Your task to perform on an android device: open the mobile data screen to see how much data has been used Image 0: 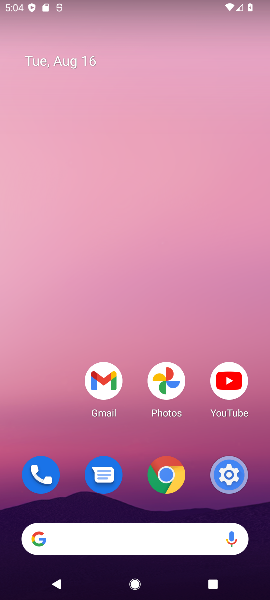
Step 0: drag from (250, 497) to (150, 20)
Your task to perform on an android device: open the mobile data screen to see how much data has been used Image 1: 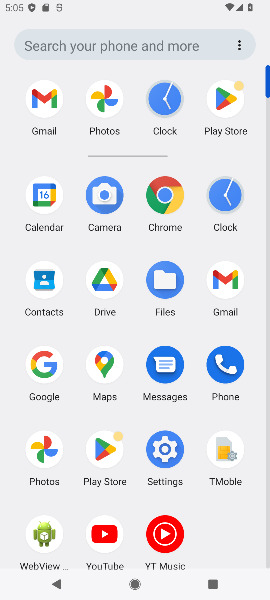
Step 1: click (162, 450)
Your task to perform on an android device: open the mobile data screen to see how much data has been used Image 2: 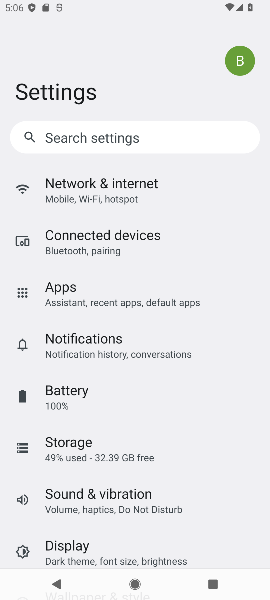
Step 2: click (104, 188)
Your task to perform on an android device: open the mobile data screen to see how much data has been used Image 3: 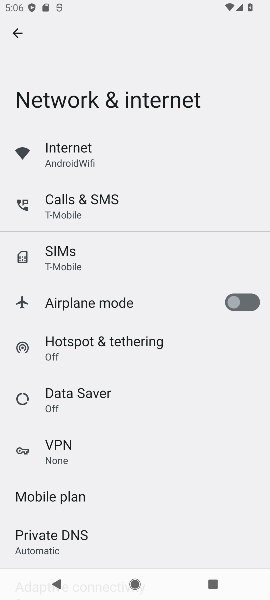
Step 3: task complete